Your task to perform on an android device: Go to Maps Image 0: 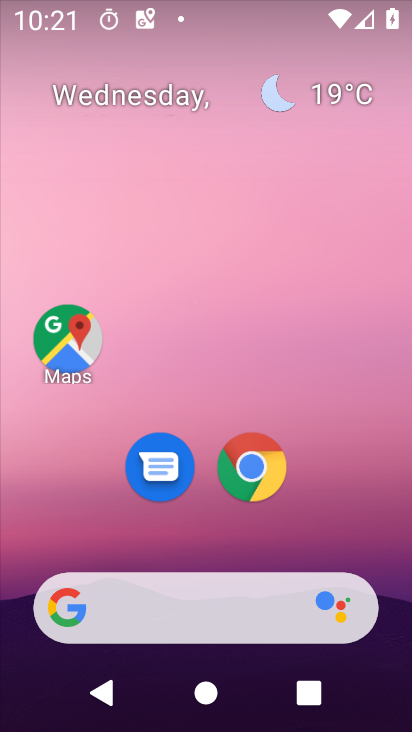
Step 0: click (76, 342)
Your task to perform on an android device: Go to Maps Image 1: 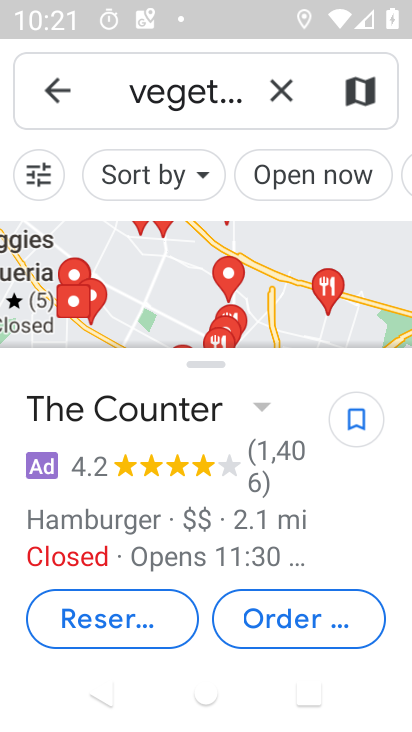
Step 1: task complete